Your task to perform on an android device: Open the map Image 0: 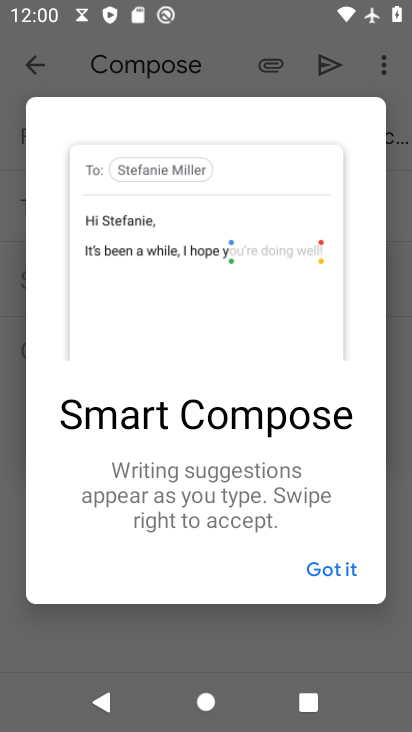
Step 0: press home button
Your task to perform on an android device: Open the map Image 1: 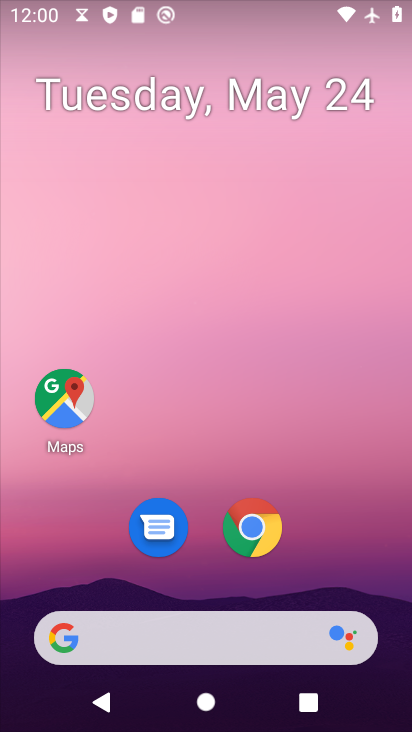
Step 1: click (59, 406)
Your task to perform on an android device: Open the map Image 2: 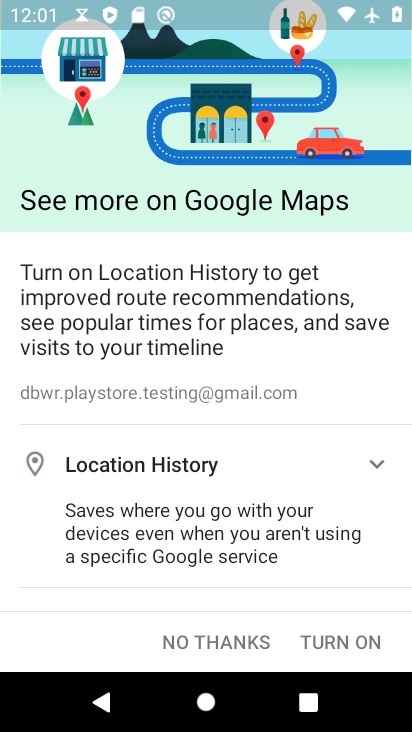
Step 2: click (239, 644)
Your task to perform on an android device: Open the map Image 3: 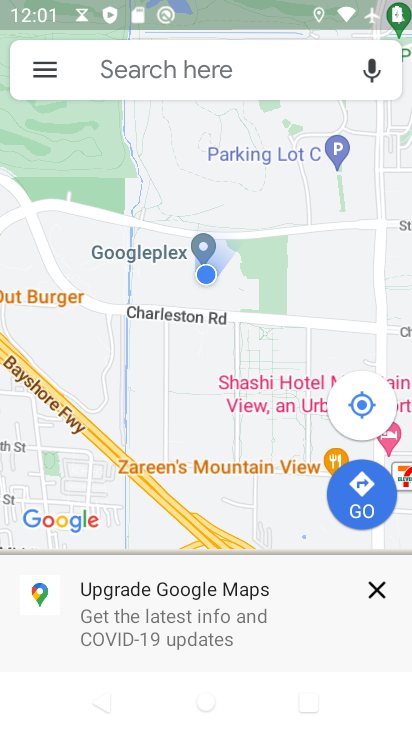
Step 3: task complete